Your task to perform on an android device: turn off translation in the chrome app Image 0: 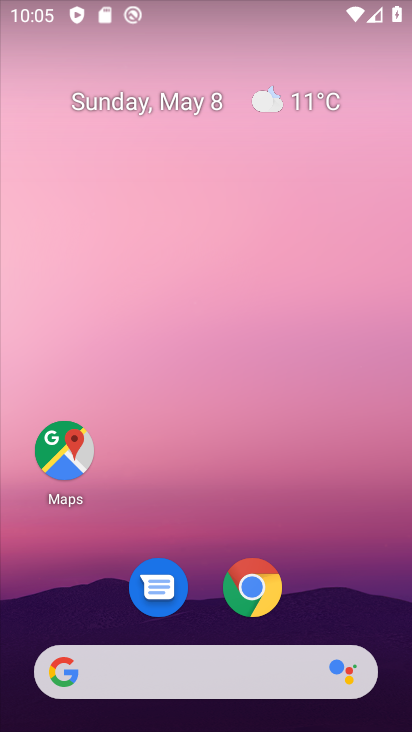
Step 0: click (261, 606)
Your task to perform on an android device: turn off translation in the chrome app Image 1: 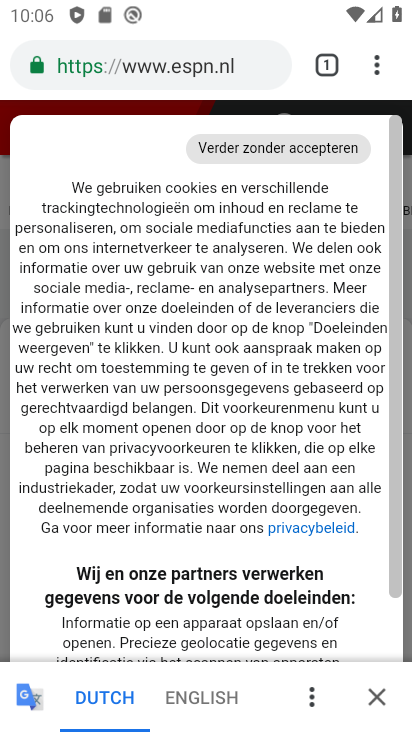
Step 1: drag from (388, 54) to (154, 630)
Your task to perform on an android device: turn off translation in the chrome app Image 2: 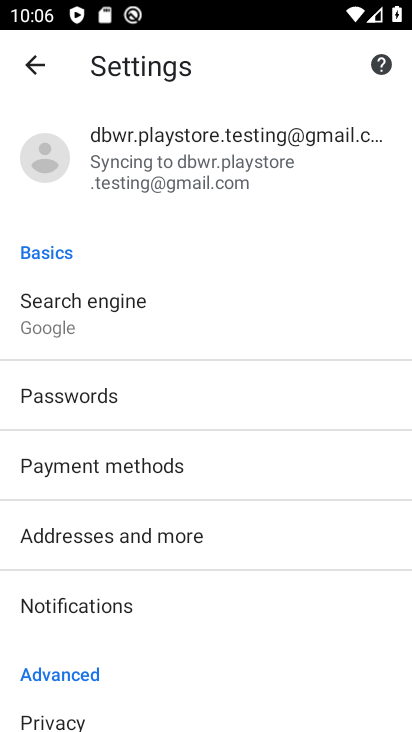
Step 2: drag from (182, 671) to (166, 209)
Your task to perform on an android device: turn off translation in the chrome app Image 3: 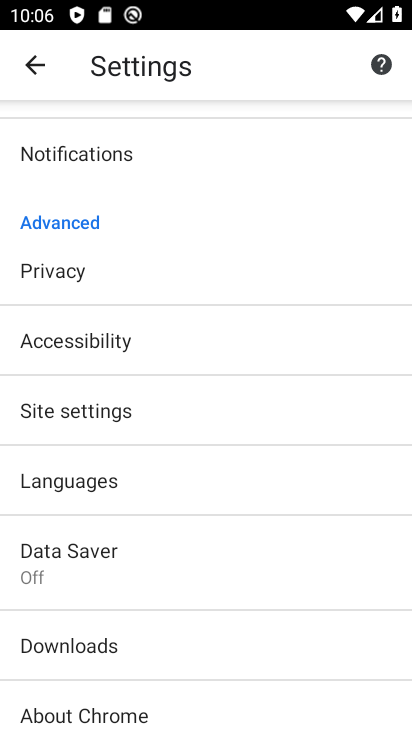
Step 3: click (122, 493)
Your task to perform on an android device: turn off translation in the chrome app Image 4: 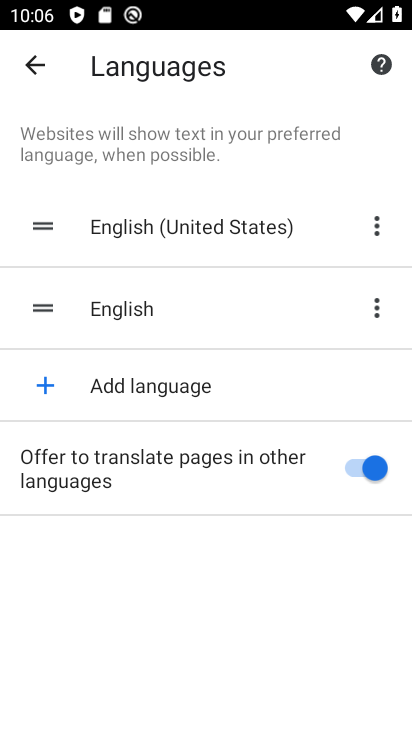
Step 4: click (357, 472)
Your task to perform on an android device: turn off translation in the chrome app Image 5: 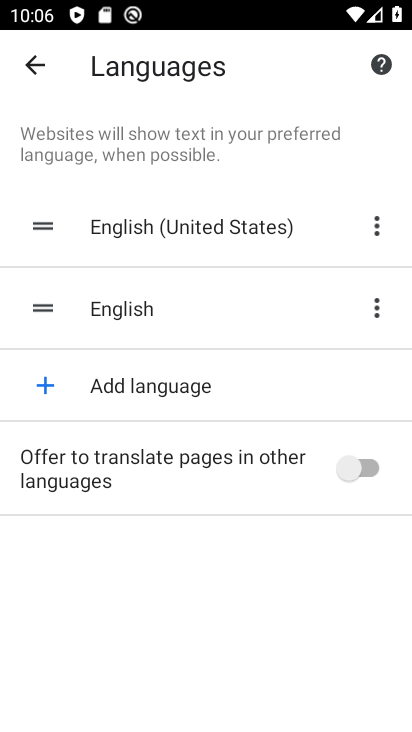
Step 5: task complete